Your task to perform on an android device: toggle show notifications on the lock screen Image 0: 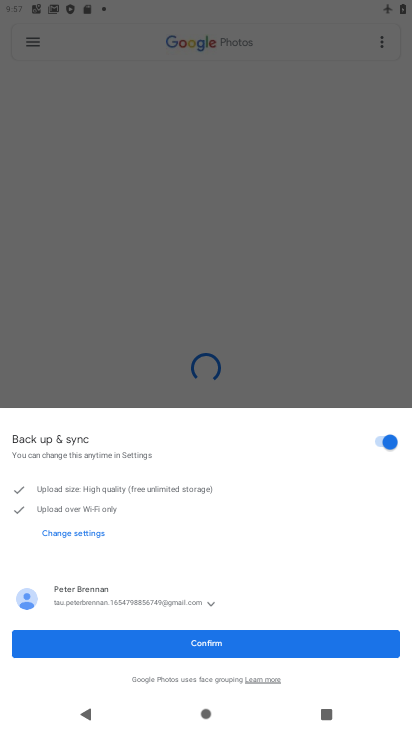
Step 0: press home button
Your task to perform on an android device: toggle show notifications on the lock screen Image 1: 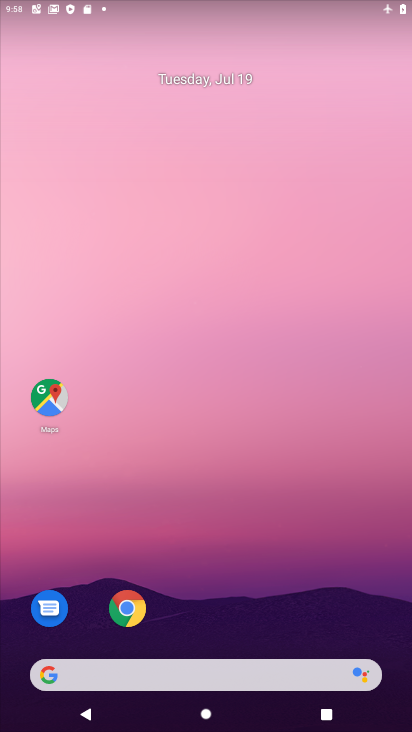
Step 1: drag from (206, 435) to (199, 194)
Your task to perform on an android device: toggle show notifications on the lock screen Image 2: 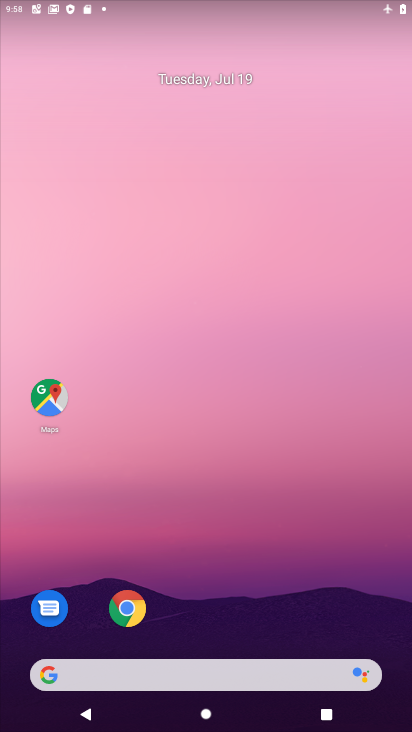
Step 2: click (223, 527)
Your task to perform on an android device: toggle show notifications on the lock screen Image 3: 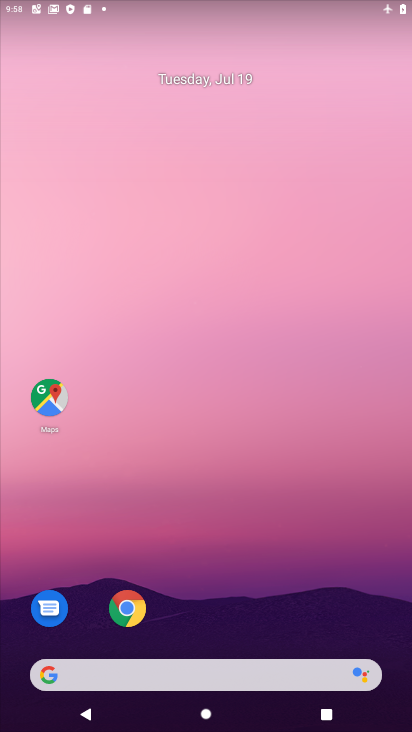
Step 3: drag from (221, 530) to (228, 494)
Your task to perform on an android device: toggle show notifications on the lock screen Image 4: 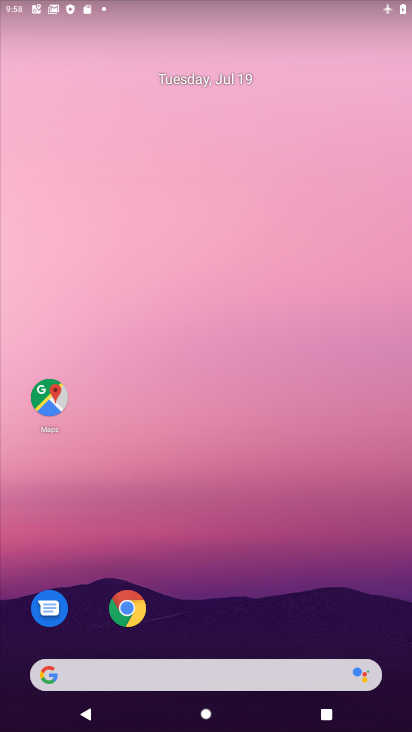
Step 4: drag from (324, 476) to (216, 48)
Your task to perform on an android device: toggle show notifications on the lock screen Image 5: 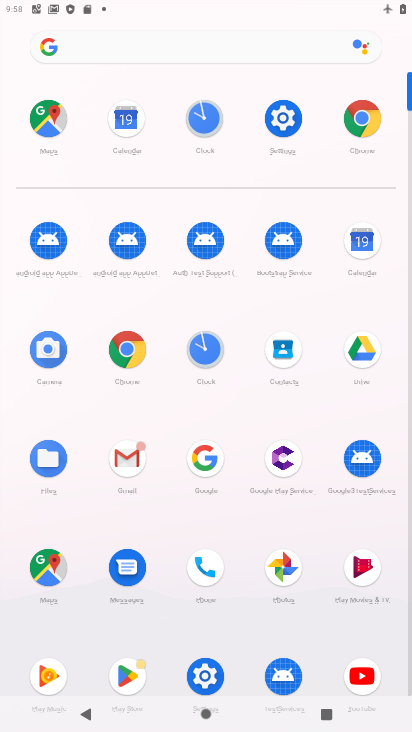
Step 5: click (285, 115)
Your task to perform on an android device: toggle show notifications on the lock screen Image 6: 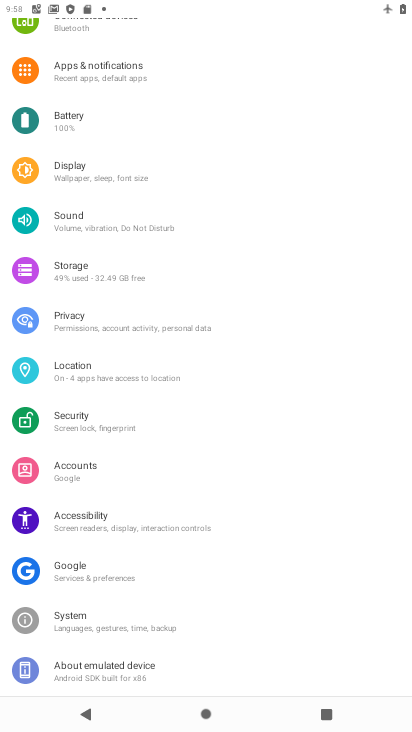
Step 6: click (79, 84)
Your task to perform on an android device: toggle show notifications on the lock screen Image 7: 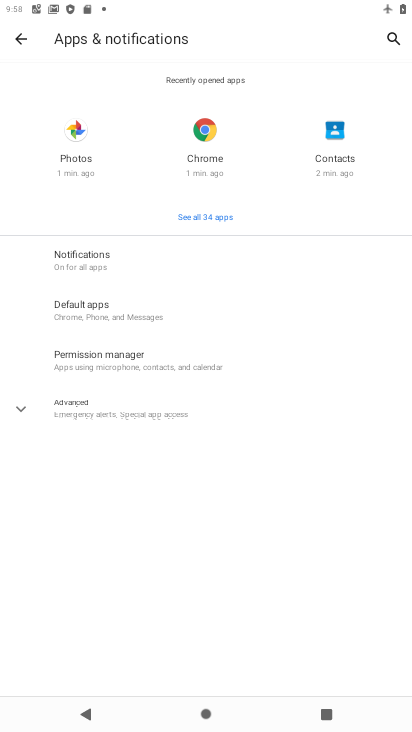
Step 7: click (77, 259)
Your task to perform on an android device: toggle show notifications on the lock screen Image 8: 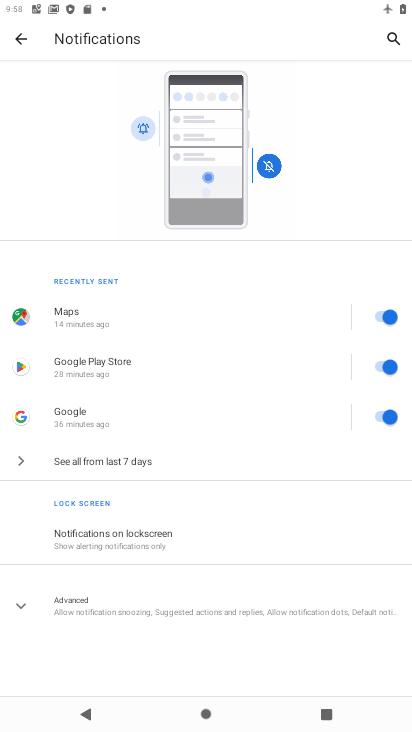
Step 8: click (111, 534)
Your task to perform on an android device: toggle show notifications on the lock screen Image 9: 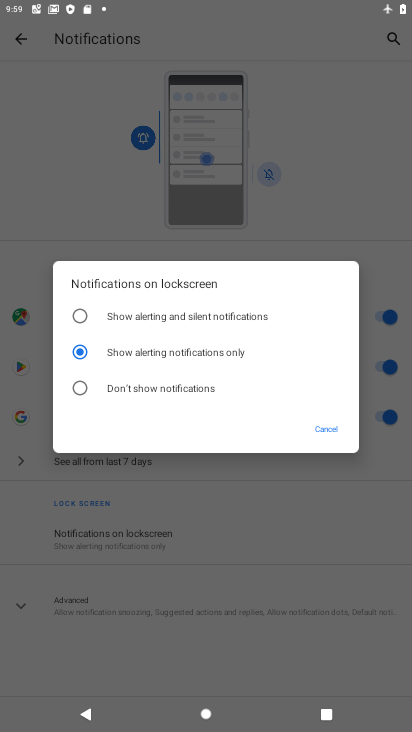
Step 9: click (188, 382)
Your task to perform on an android device: toggle show notifications on the lock screen Image 10: 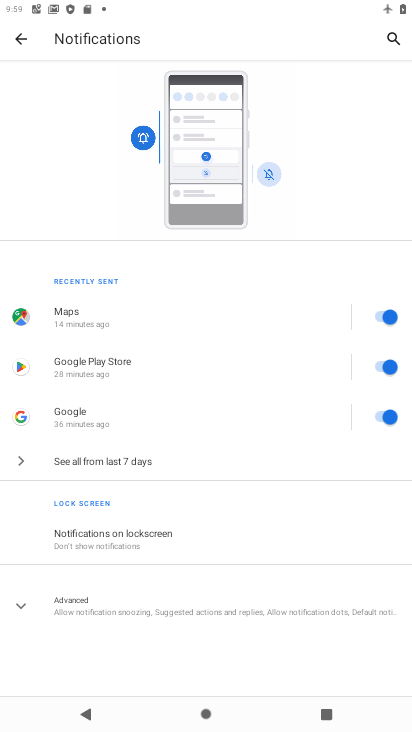
Step 10: task complete